Your task to perform on an android device: turn off notifications in google photos Image 0: 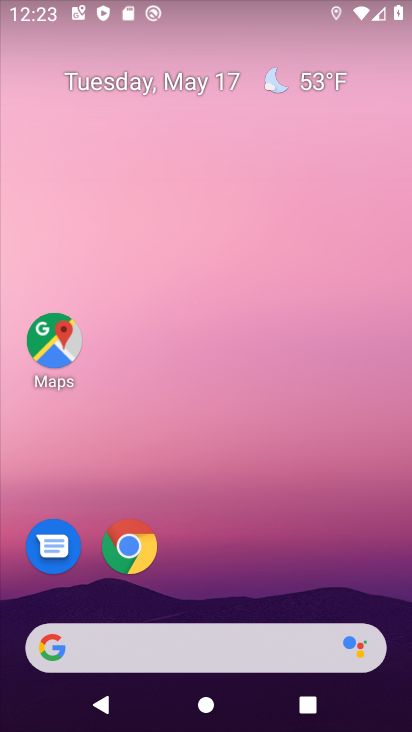
Step 0: drag from (244, 557) to (251, 80)
Your task to perform on an android device: turn off notifications in google photos Image 1: 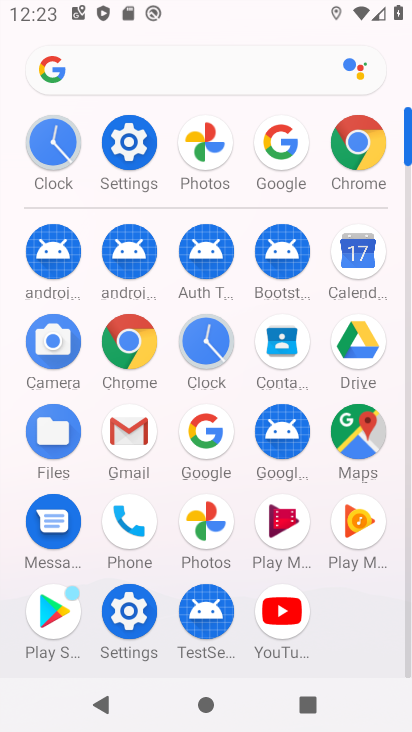
Step 1: click (205, 141)
Your task to perform on an android device: turn off notifications in google photos Image 2: 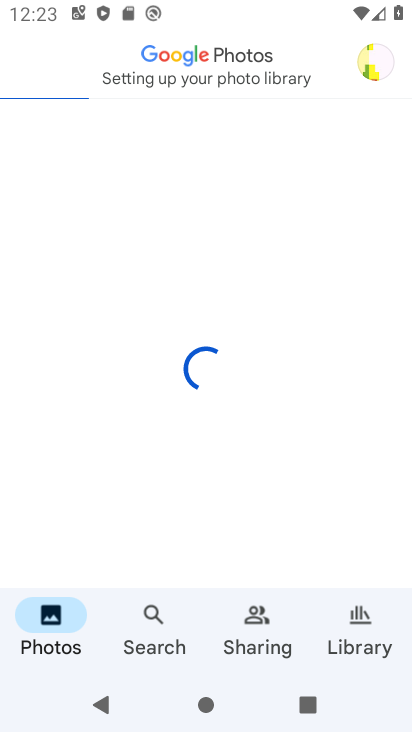
Step 2: press home button
Your task to perform on an android device: turn off notifications in google photos Image 3: 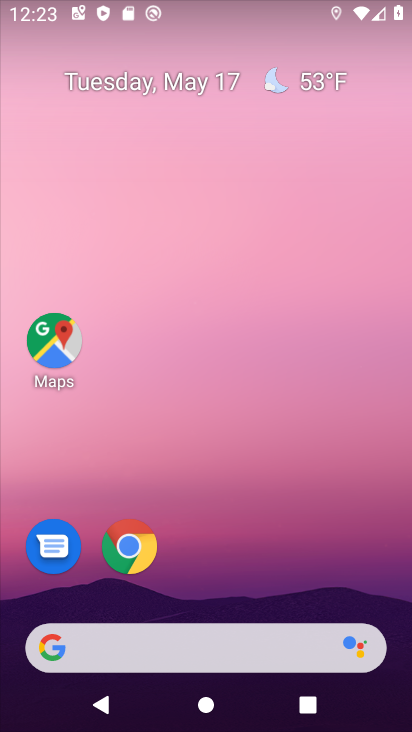
Step 3: drag from (259, 568) to (245, 193)
Your task to perform on an android device: turn off notifications in google photos Image 4: 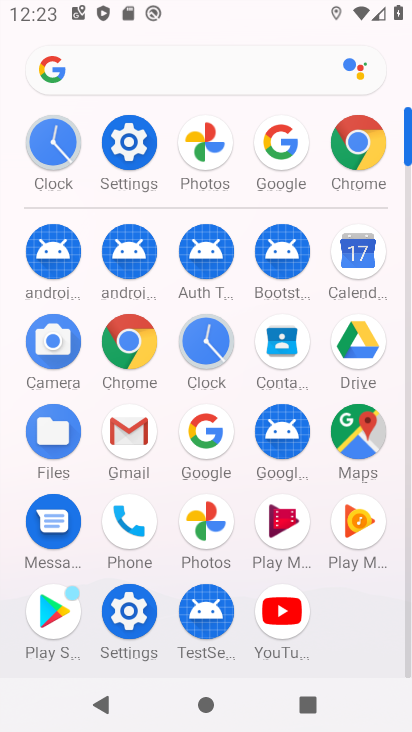
Step 4: click (203, 519)
Your task to perform on an android device: turn off notifications in google photos Image 5: 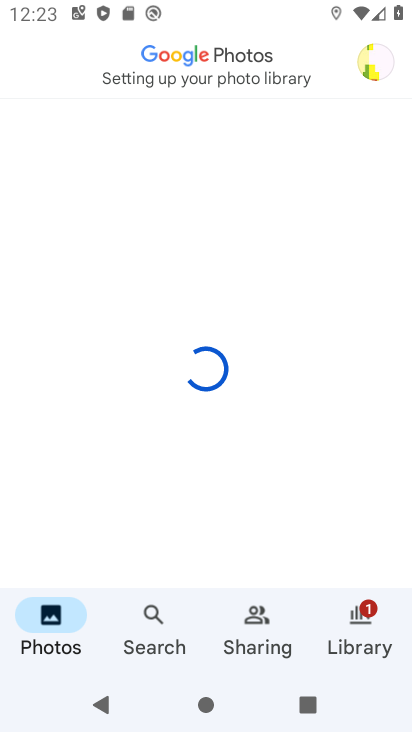
Step 5: click (370, 62)
Your task to perform on an android device: turn off notifications in google photos Image 6: 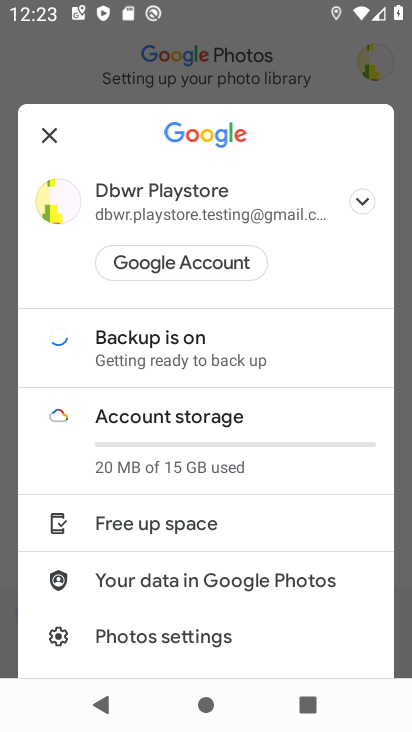
Step 6: drag from (187, 553) to (203, 279)
Your task to perform on an android device: turn off notifications in google photos Image 7: 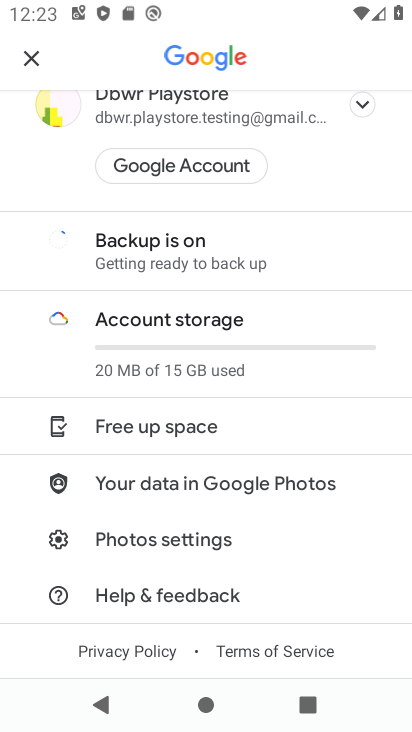
Step 7: click (202, 546)
Your task to perform on an android device: turn off notifications in google photos Image 8: 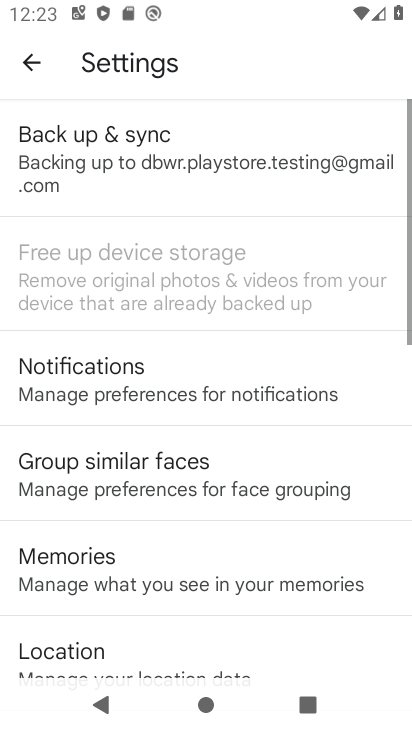
Step 8: click (179, 578)
Your task to perform on an android device: turn off notifications in google photos Image 9: 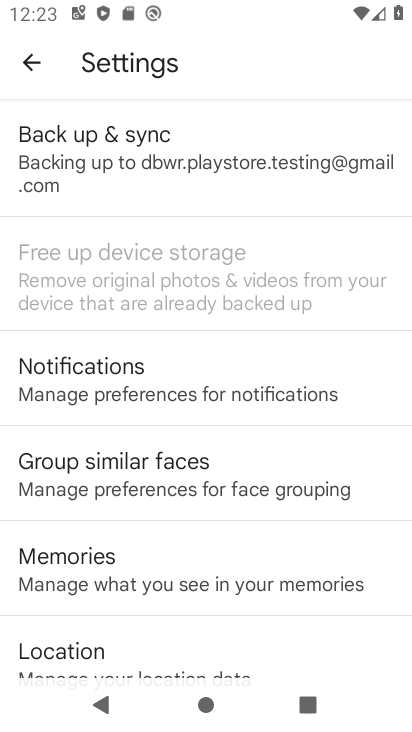
Step 9: click (110, 394)
Your task to perform on an android device: turn off notifications in google photos Image 10: 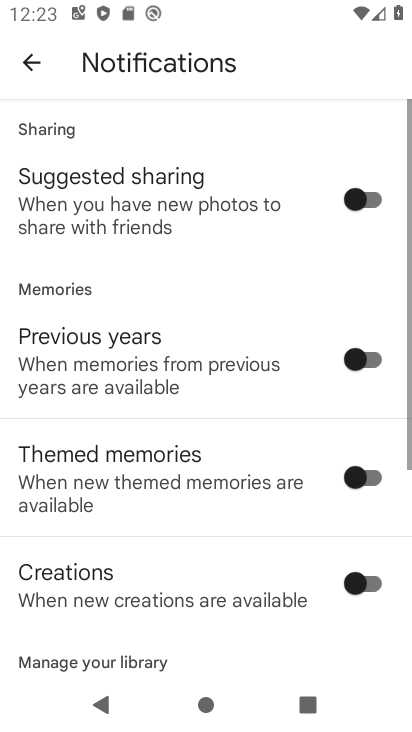
Step 10: drag from (173, 573) to (174, 126)
Your task to perform on an android device: turn off notifications in google photos Image 11: 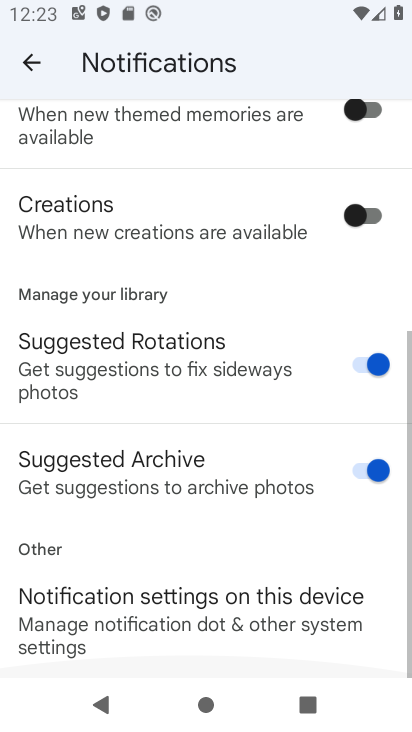
Step 11: click (160, 625)
Your task to perform on an android device: turn off notifications in google photos Image 12: 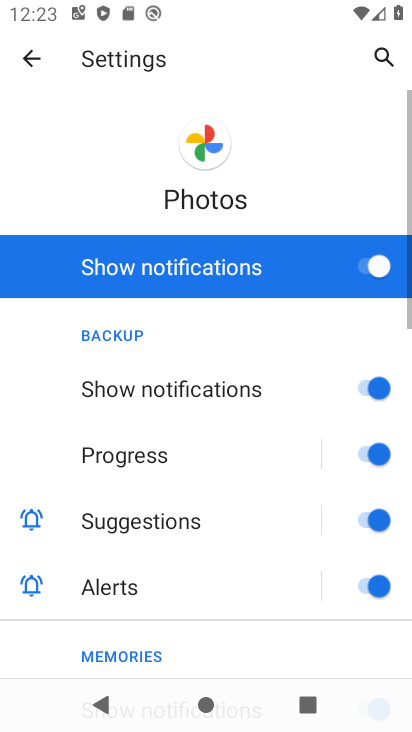
Step 12: drag from (159, 623) to (188, 580)
Your task to perform on an android device: turn off notifications in google photos Image 13: 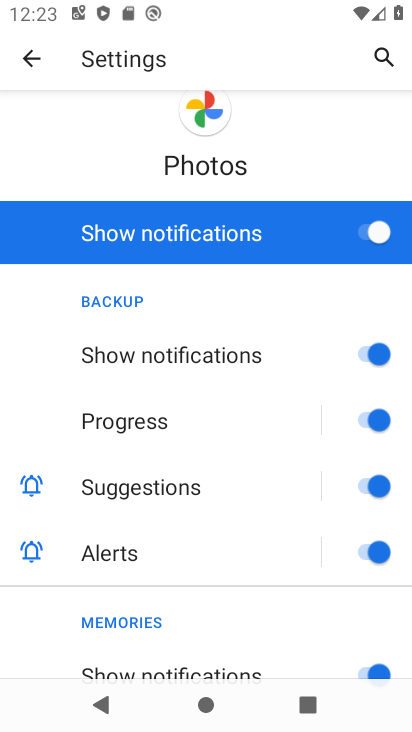
Step 13: click (381, 234)
Your task to perform on an android device: turn off notifications in google photos Image 14: 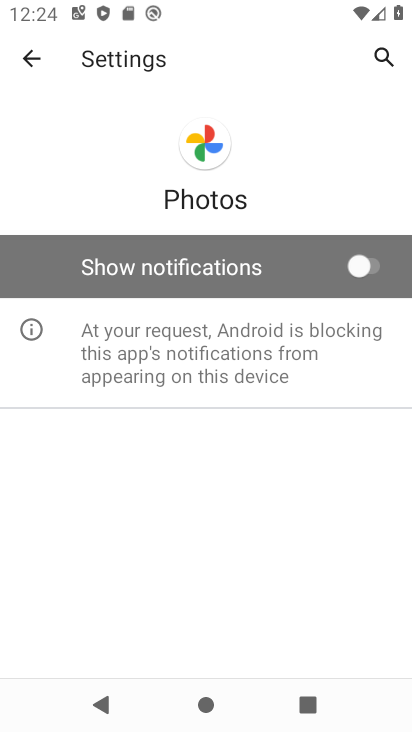
Step 14: task complete